Your task to perform on an android device: What is the recent news? Image 0: 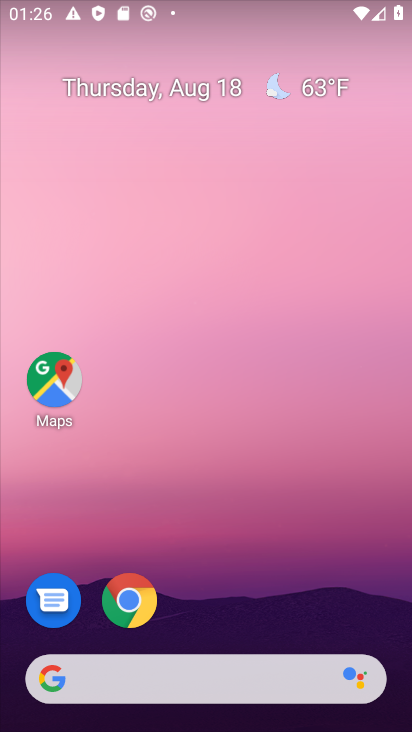
Step 0: click (152, 663)
Your task to perform on an android device: What is the recent news? Image 1: 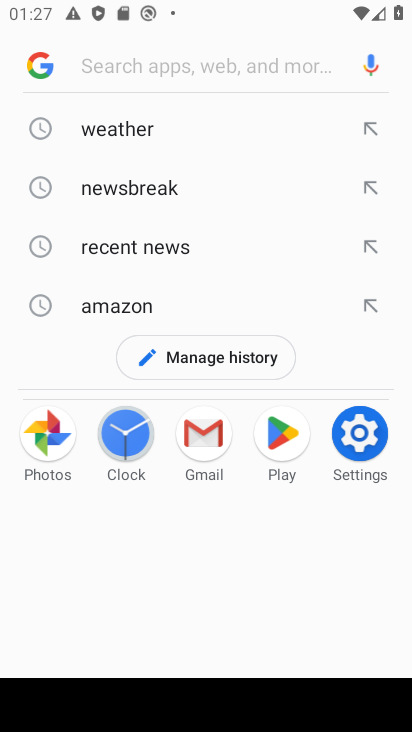
Step 1: click (166, 246)
Your task to perform on an android device: What is the recent news? Image 2: 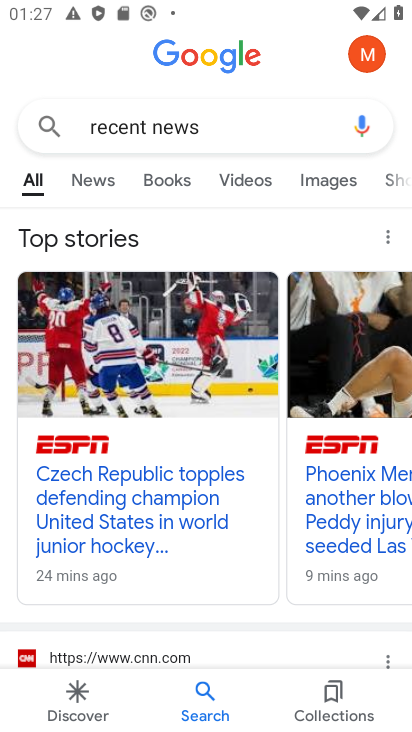
Step 2: drag from (190, 615) to (152, 426)
Your task to perform on an android device: What is the recent news? Image 3: 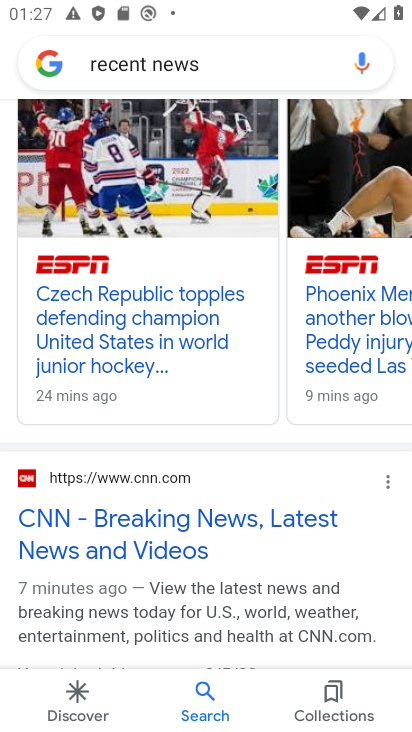
Step 3: click (132, 530)
Your task to perform on an android device: What is the recent news? Image 4: 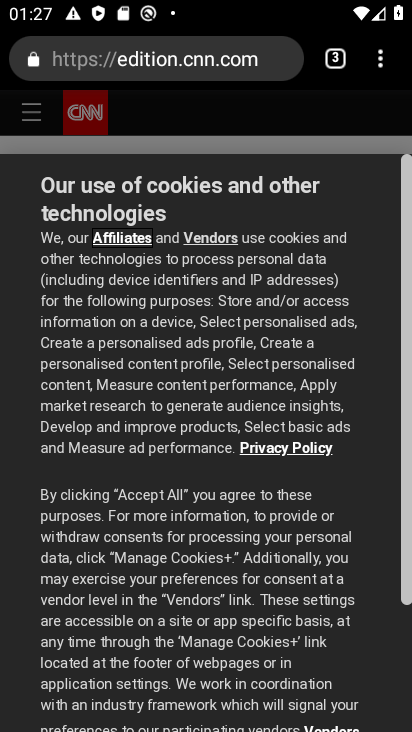
Step 4: drag from (230, 614) to (218, 390)
Your task to perform on an android device: What is the recent news? Image 5: 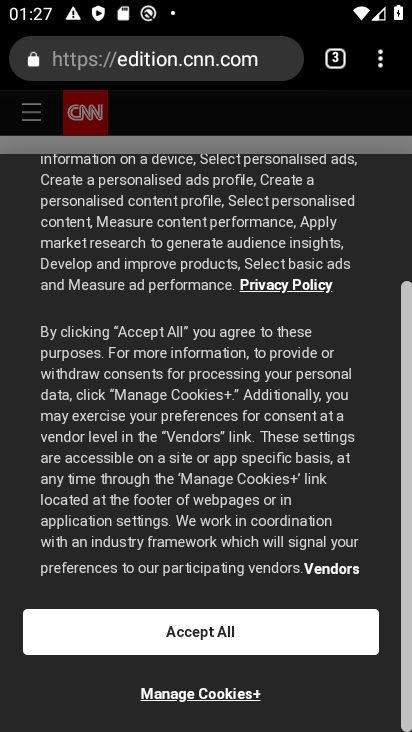
Step 5: click (204, 635)
Your task to perform on an android device: What is the recent news? Image 6: 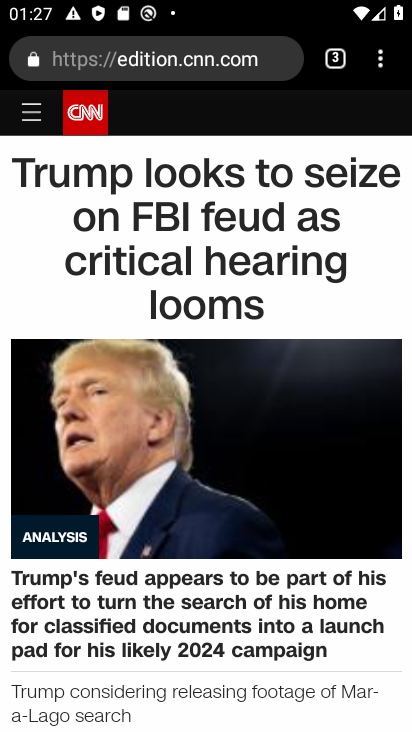
Step 6: task complete